Your task to perform on an android device: Open Yahoo.com Image 0: 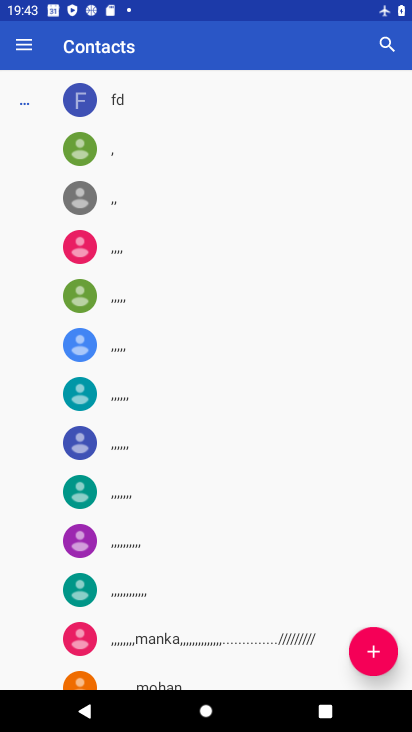
Step 0: press home button
Your task to perform on an android device: Open Yahoo.com Image 1: 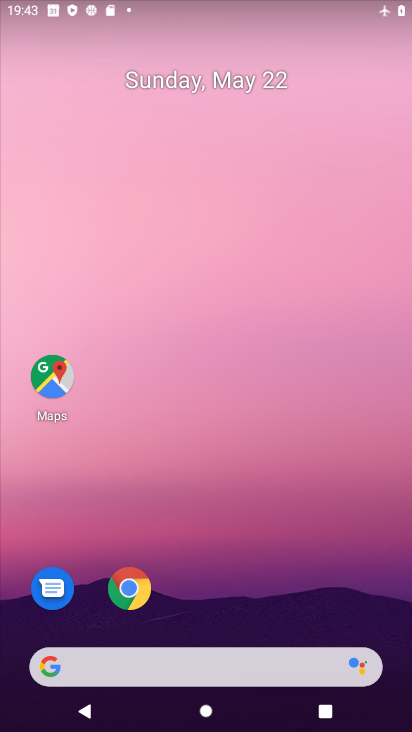
Step 1: click (139, 590)
Your task to perform on an android device: Open Yahoo.com Image 2: 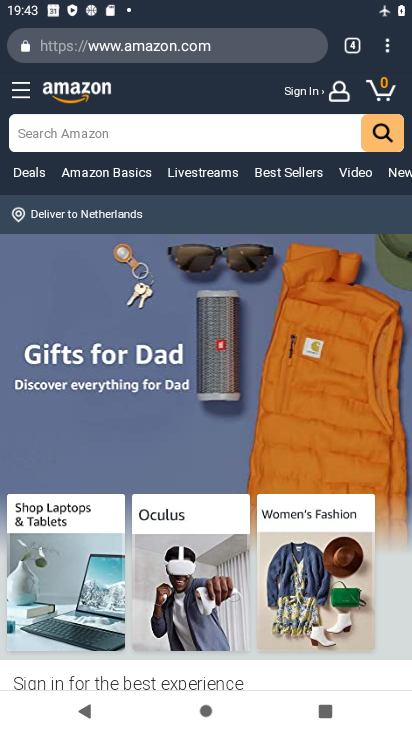
Step 2: click (385, 45)
Your task to perform on an android device: Open Yahoo.com Image 3: 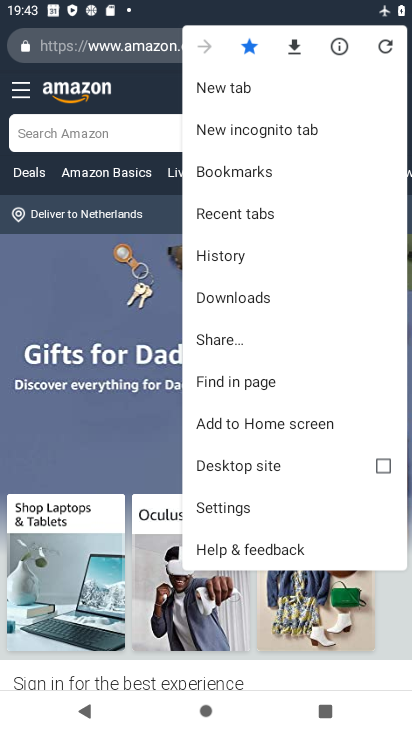
Step 3: click (221, 90)
Your task to perform on an android device: Open Yahoo.com Image 4: 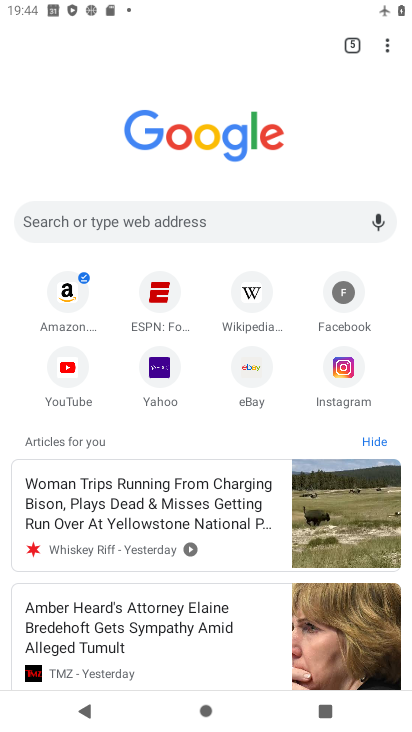
Step 4: click (152, 360)
Your task to perform on an android device: Open Yahoo.com Image 5: 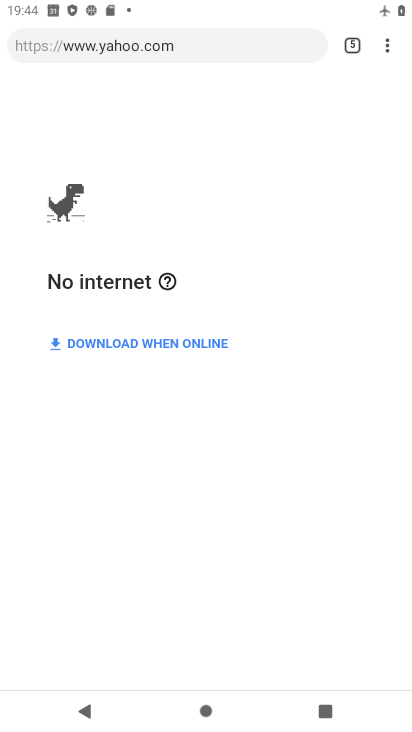
Step 5: task complete